Your task to perform on an android device: Search for hotels in Tokyo Image 0: 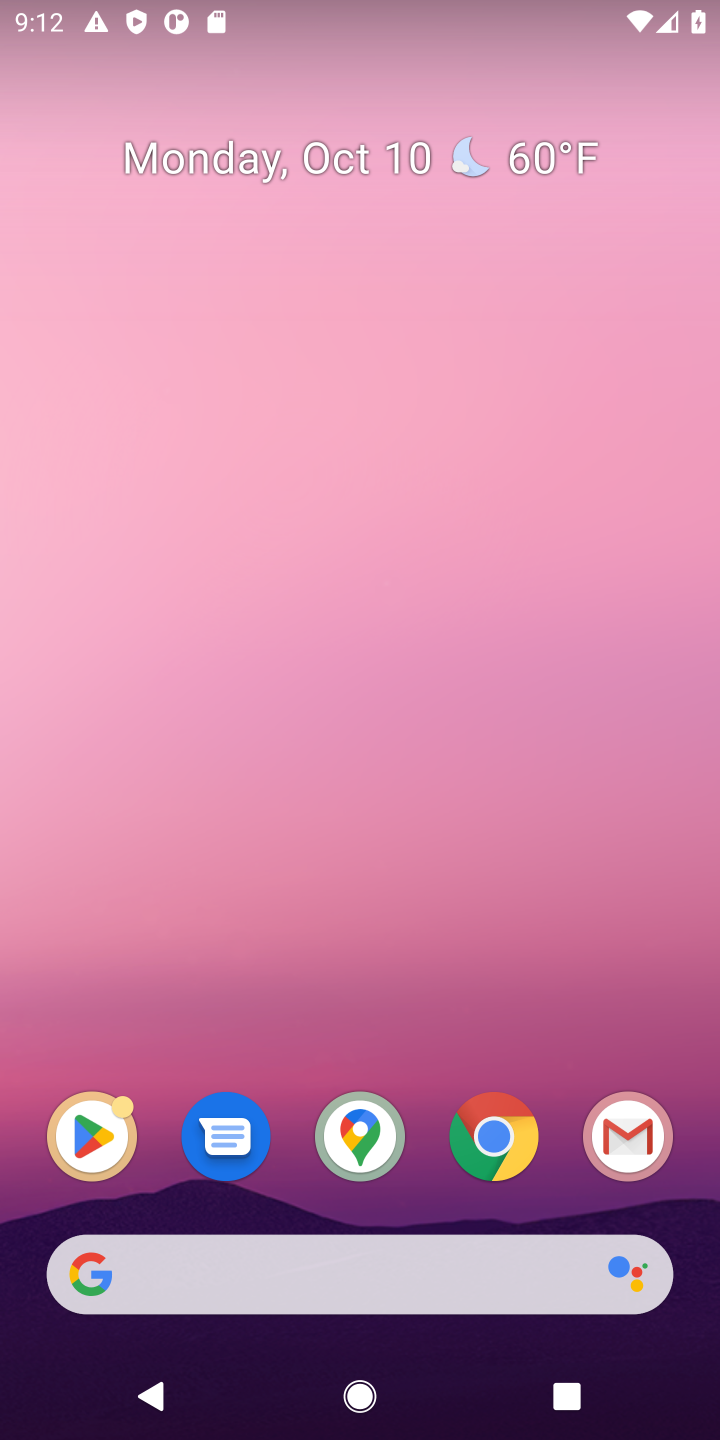
Step 0: click (312, 1255)
Your task to perform on an android device: Search for hotels in Tokyo Image 1: 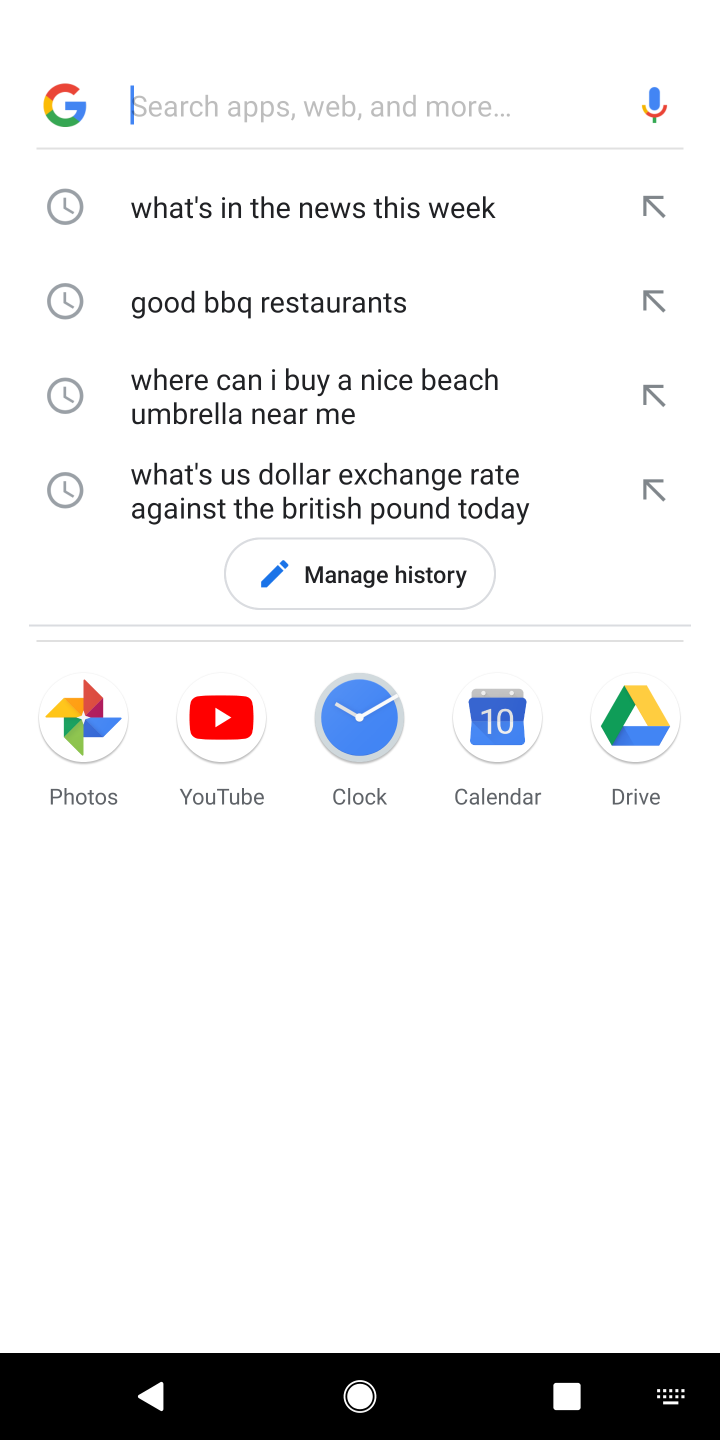
Step 1: type "Search for hotels in Tokyo"
Your task to perform on an android device: Search for hotels in Tokyo Image 2: 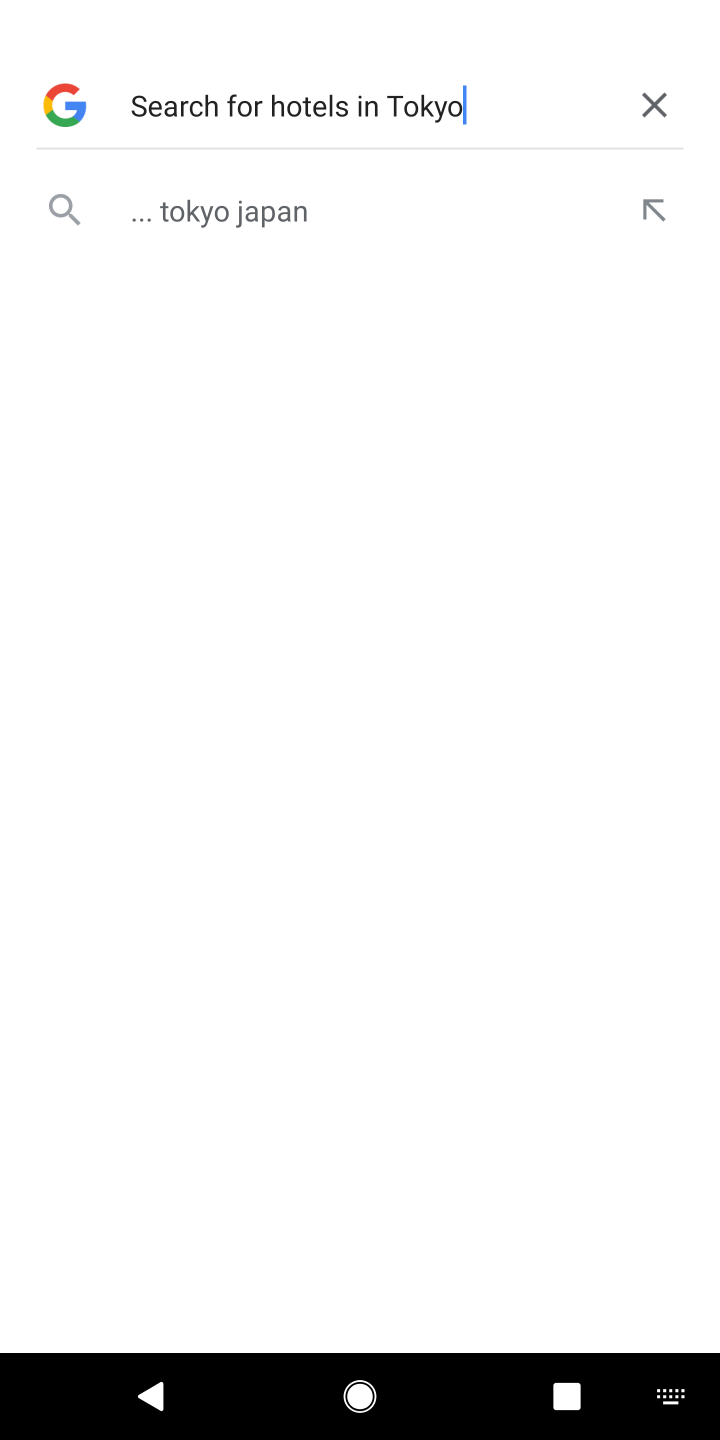
Step 2: click (269, 201)
Your task to perform on an android device: Search for hotels in Tokyo Image 3: 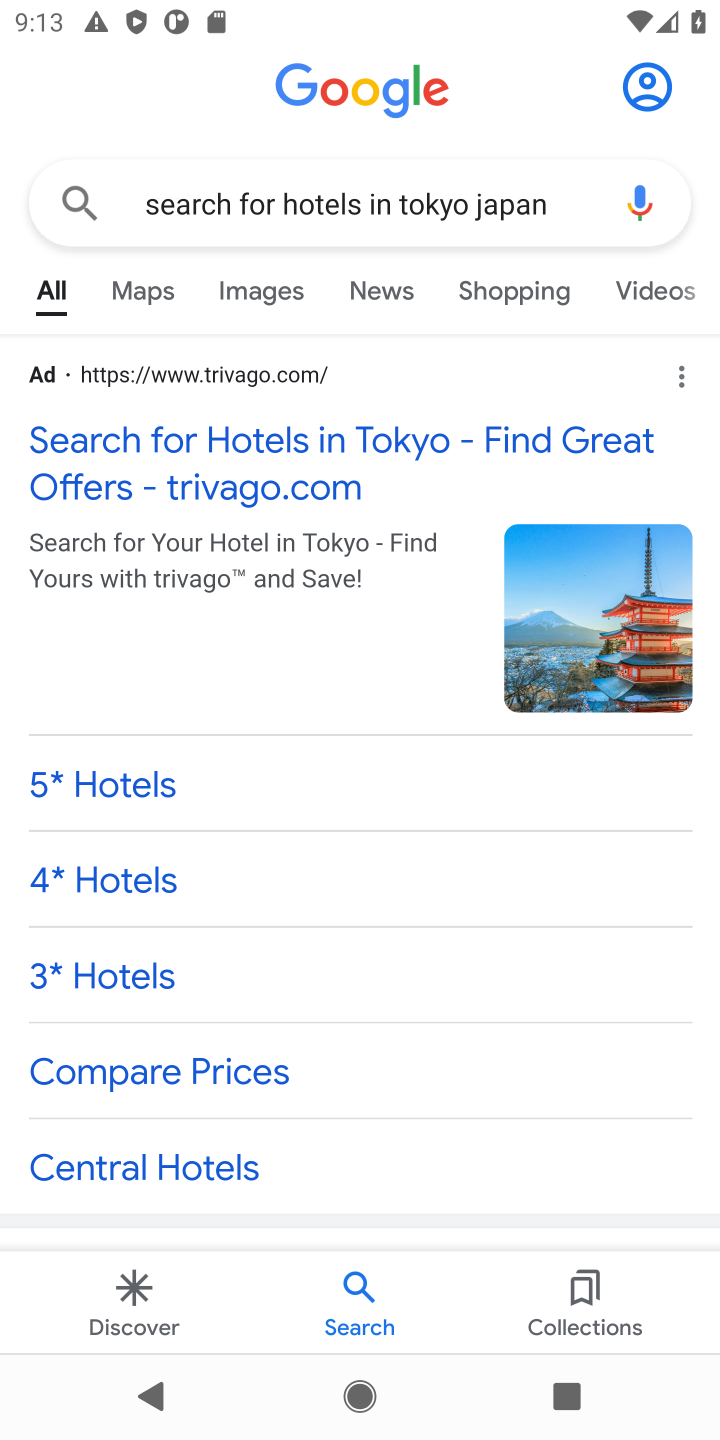
Step 3: click (218, 452)
Your task to perform on an android device: Search for hotels in Tokyo Image 4: 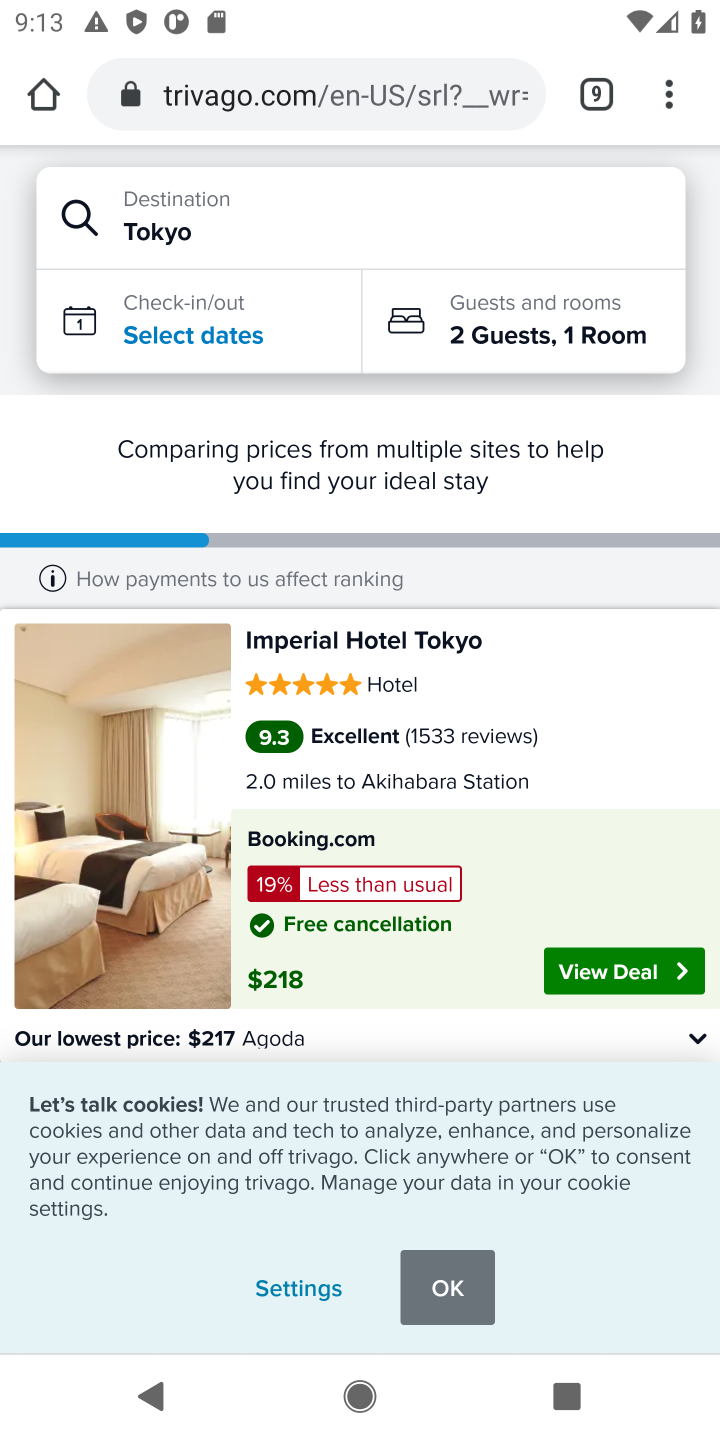
Step 4: task complete